Your task to perform on an android device: Open accessibility settings Image 0: 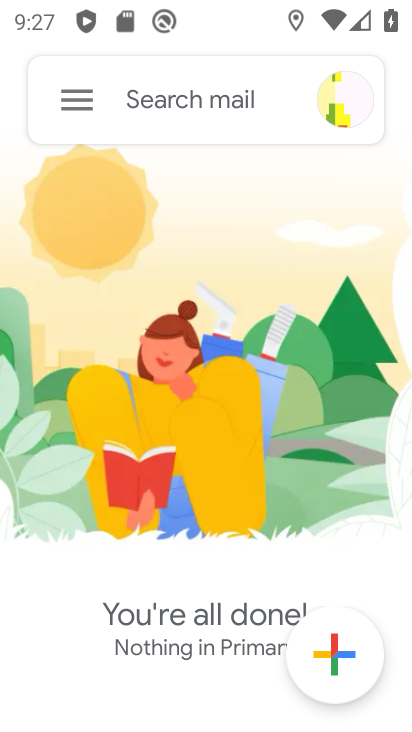
Step 0: press home button
Your task to perform on an android device: Open accessibility settings Image 1: 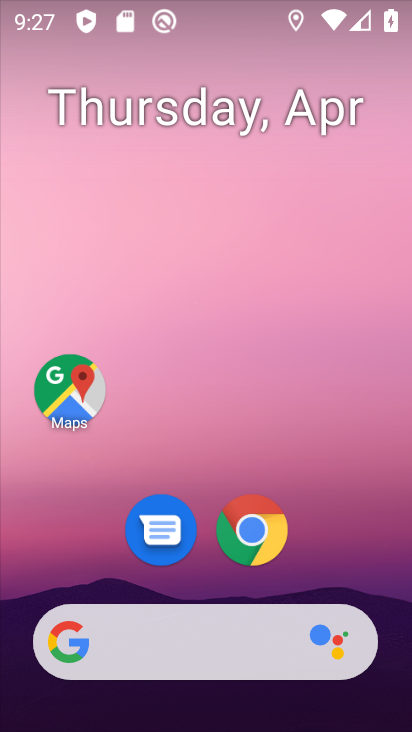
Step 1: drag from (347, 584) to (270, 62)
Your task to perform on an android device: Open accessibility settings Image 2: 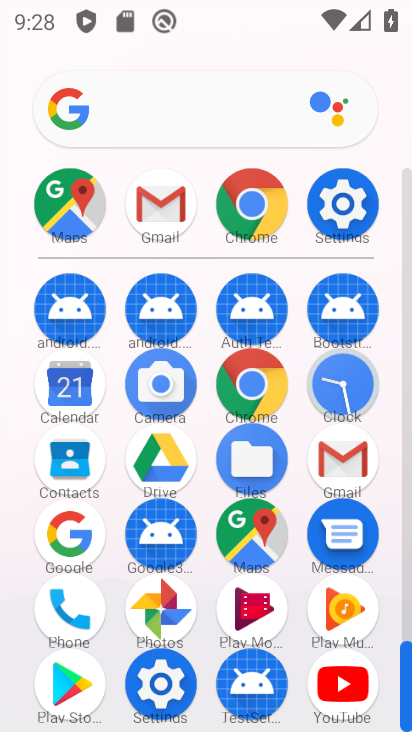
Step 2: click (341, 218)
Your task to perform on an android device: Open accessibility settings Image 3: 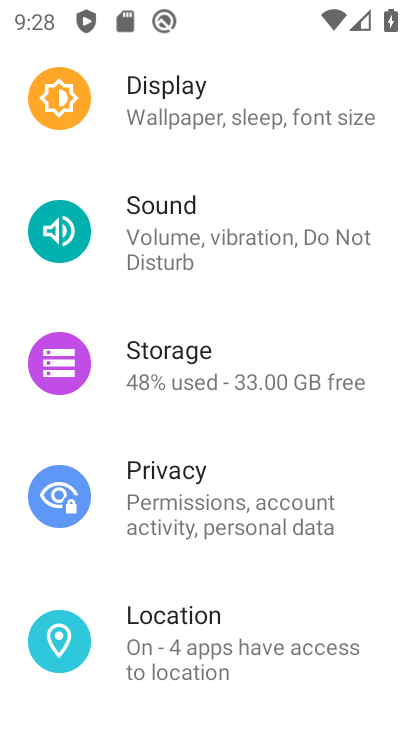
Step 3: drag from (199, 637) to (260, 137)
Your task to perform on an android device: Open accessibility settings Image 4: 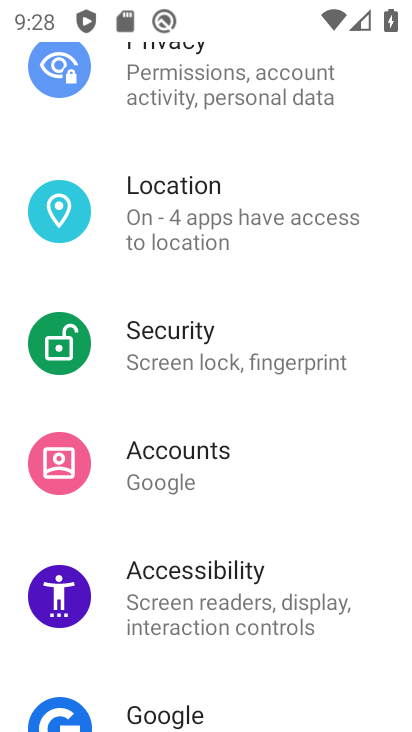
Step 4: click (170, 575)
Your task to perform on an android device: Open accessibility settings Image 5: 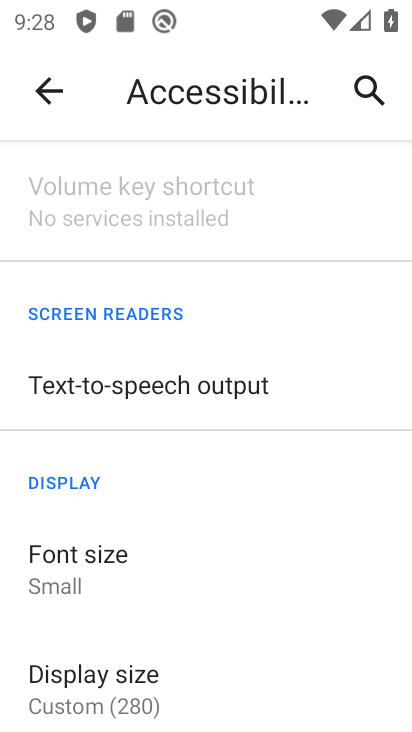
Step 5: task complete